Your task to perform on an android device: Go to battery settings Image 0: 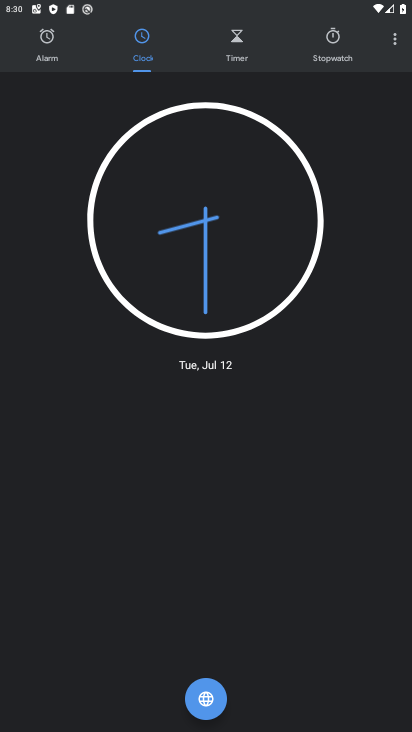
Step 0: drag from (273, 605) to (272, 496)
Your task to perform on an android device: Go to battery settings Image 1: 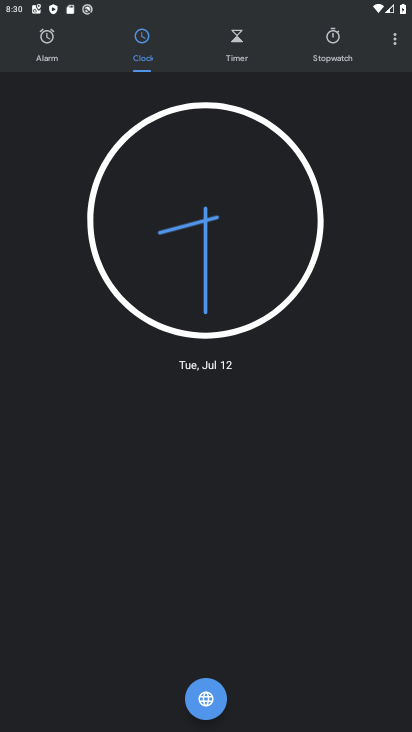
Step 1: click (391, 46)
Your task to perform on an android device: Go to battery settings Image 2: 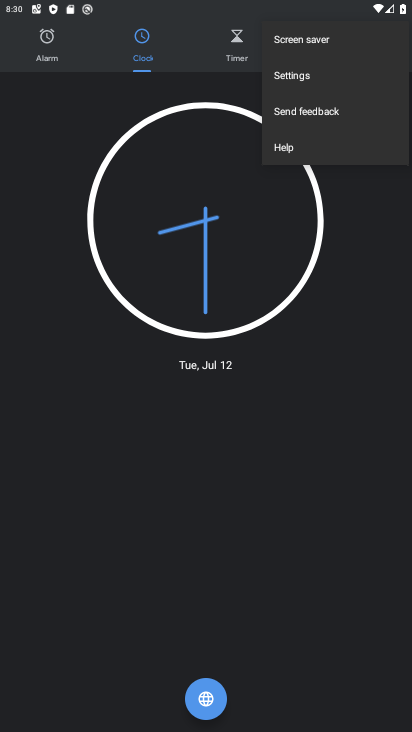
Step 2: click (302, 75)
Your task to perform on an android device: Go to battery settings Image 3: 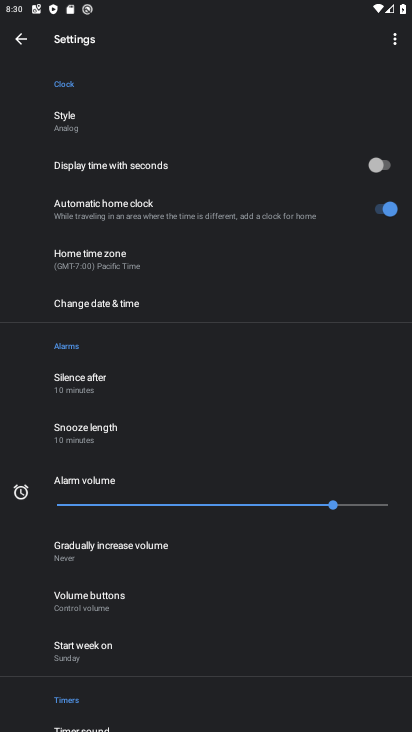
Step 3: drag from (155, 112) to (194, 678)
Your task to perform on an android device: Go to battery settings Image 4: 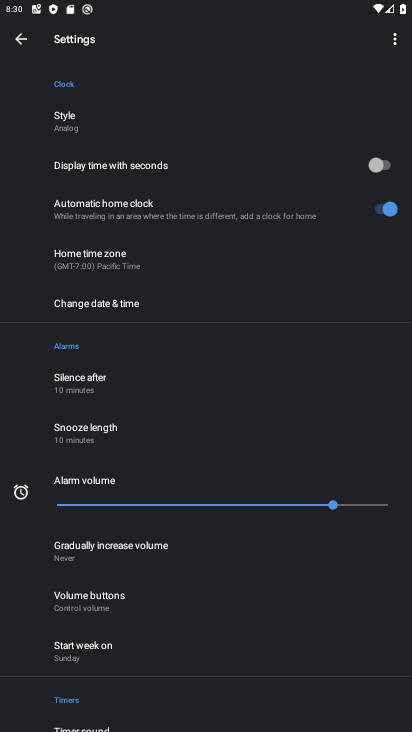
Step 4: press home button
Your task to perform on an android device: Go to battery settings Image 5: 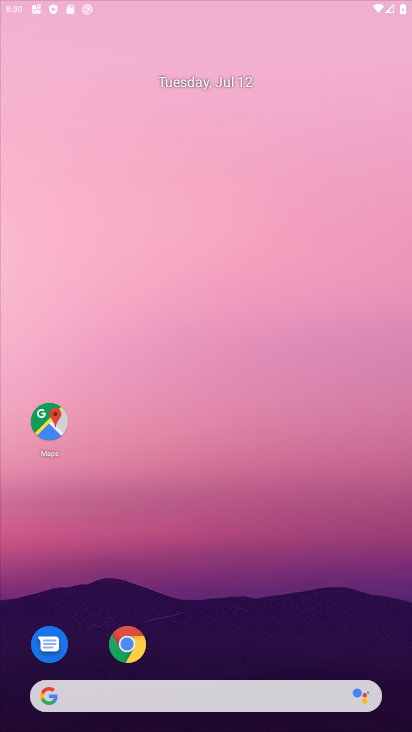
Step 5: drag from (186, 611) to (237, 22)
Your task to perform on an android device: Go to battery settings Image 6: 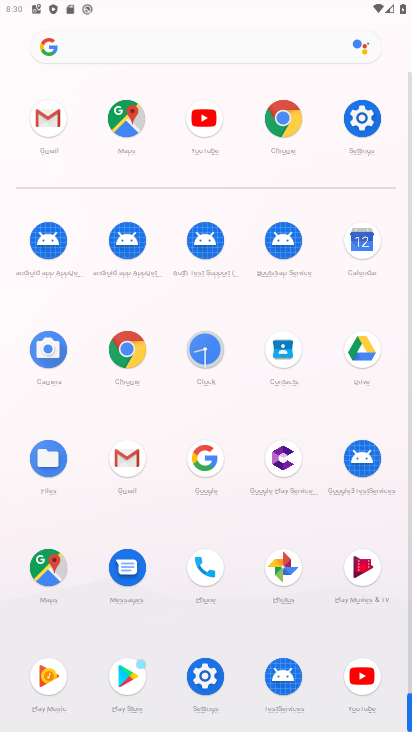
Step 6: click (368, 128)
Your task to perform on an android device: Go to battery settings Image 7: 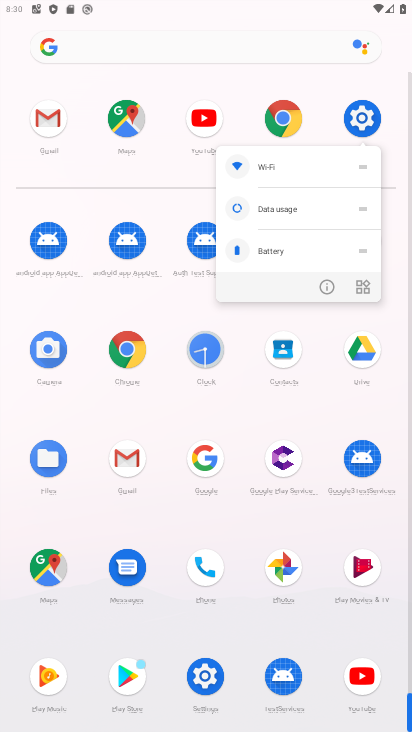
Step 7: click (290, 245)
Your task to perform on an android device: Go to battery settings Image 8: 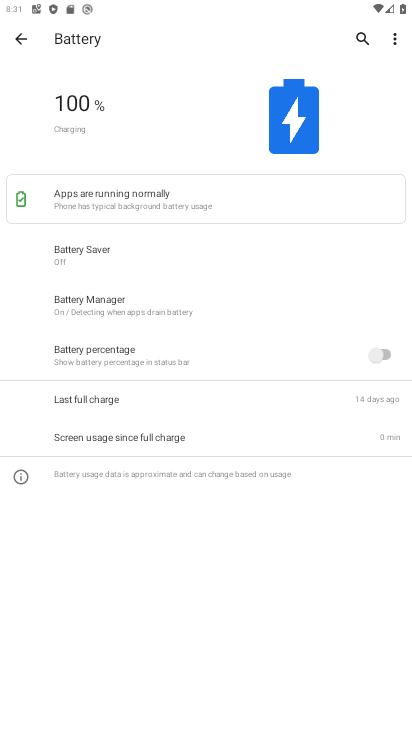
Step 8: task complete